Your task to perform on an android device: allow notifications from all sites in the chrome app Image 0: 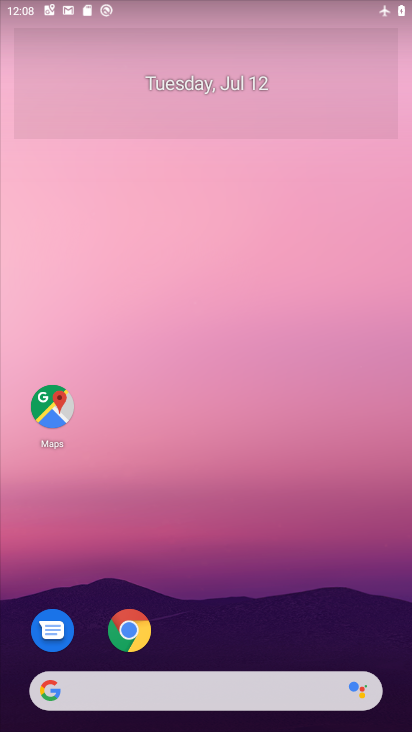
Step 0: drag from (261, 614) to (226, 42)
Your task to perform on an android device: allow notifications from all sites in the chrome app Image 1: 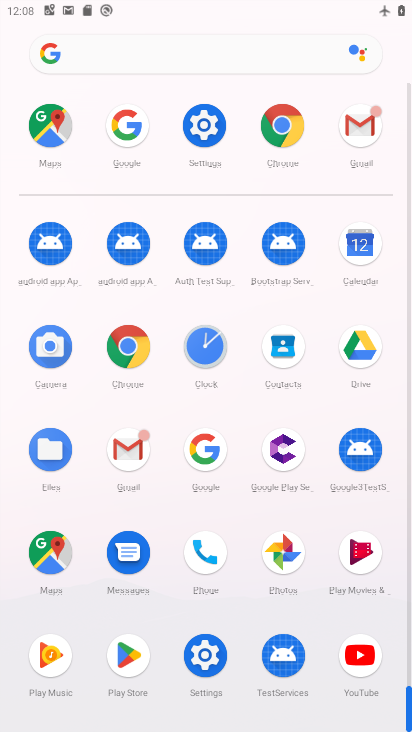
Step 1: click (306, 148)
Your task to perform on an android device: allow notifications from all sites in the chrome app Image 2: 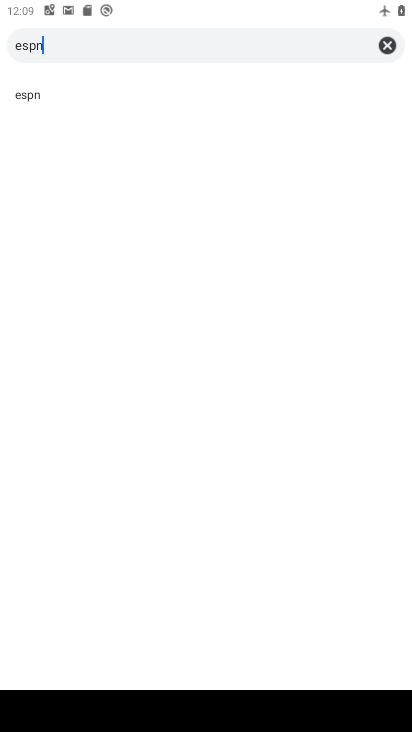
Step 2: click (395, 44)
Your task to perform on an android device: allow notifications from all sites in the chrome app Image 3: 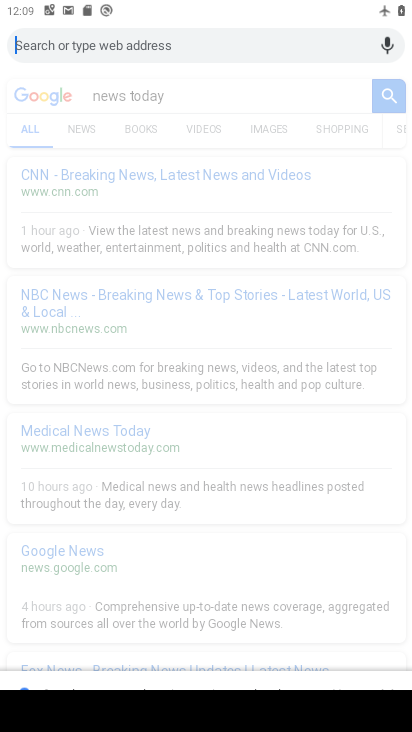
Step 3: press back button
Your task to perform on an android device: allow notifications from all sites in the chrome app Image 4: 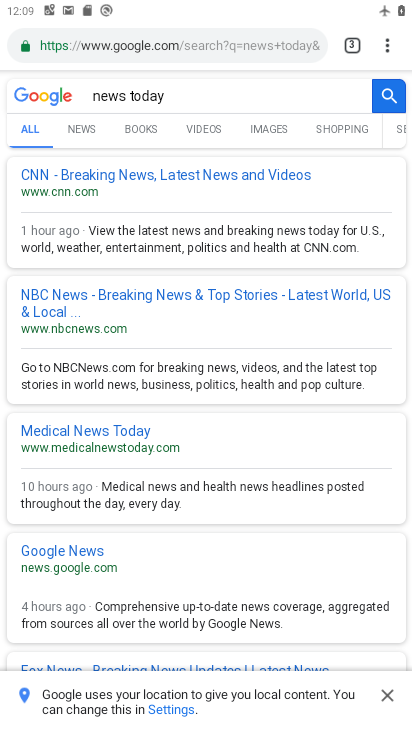
Step 4: click (389, 41)
Your task to perform on an android device: allow notifications from all sites in the chrome app Image 5: 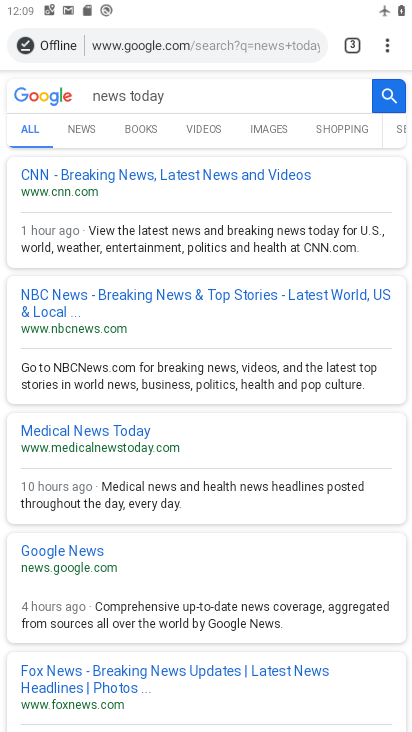
Step 5: click (385, 42)
Your task to perform on an android device: allow notifications from all sites in the chrome app Image 6: 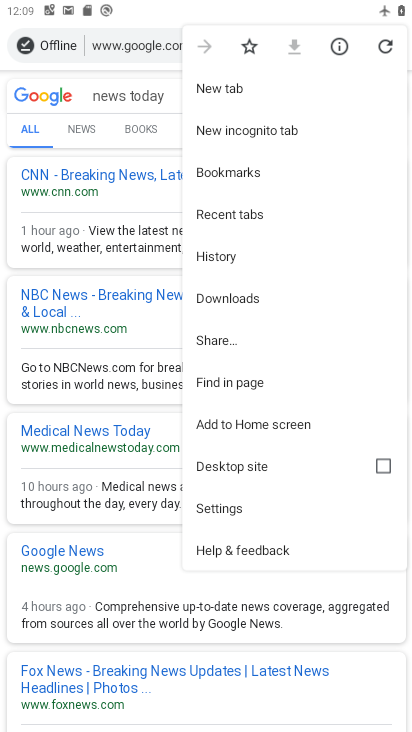
Step 6: click (222, 510)
Your task to perform on an android device: allow notifications from all sites in the chrome app Image 7: 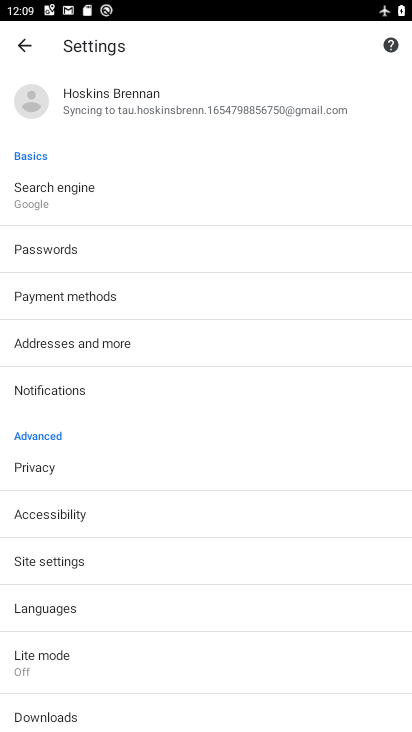
Step 7: click (80, 397)
Your task to perform on an android device: allow notifications from all sites in the chrome app Image 8: 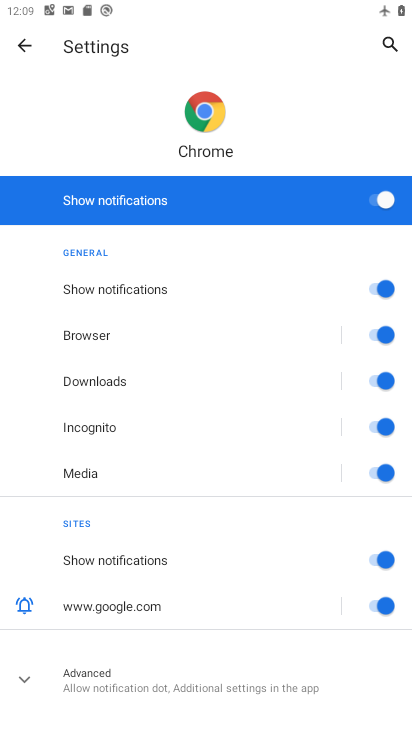
Step 8: task complete